Your task to perform on an android device: Check the settings for the Google Play Books app Image 0: 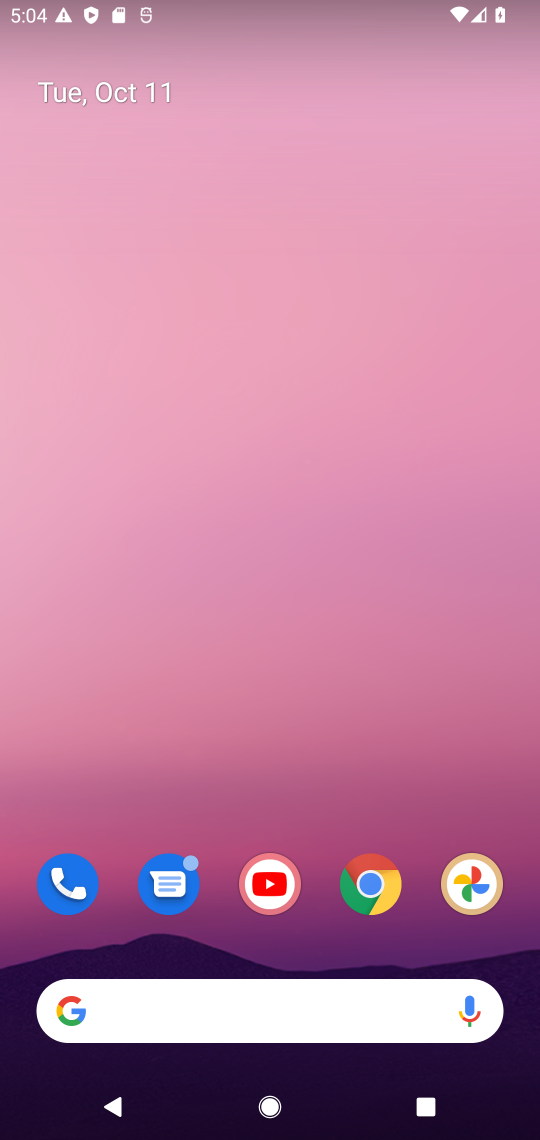
Step 0: drag from (338, 939) to (386, 201)
Your task to perform on an android device: Check the settings for the Google Play Books app Image 1: 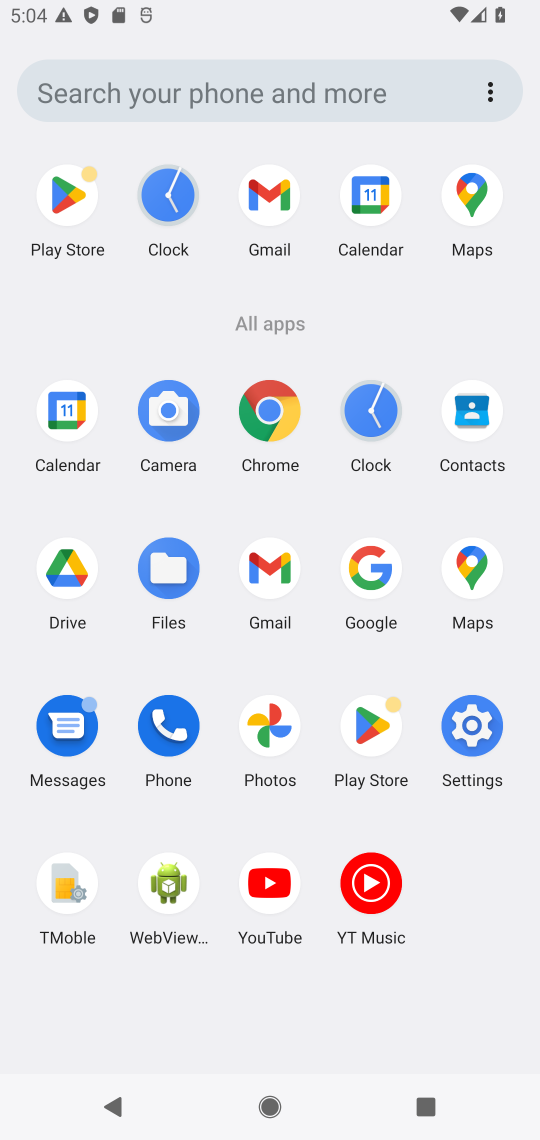
Step 1: task complete